Your task to perform on an android device: toggle sleep mode Image 0: 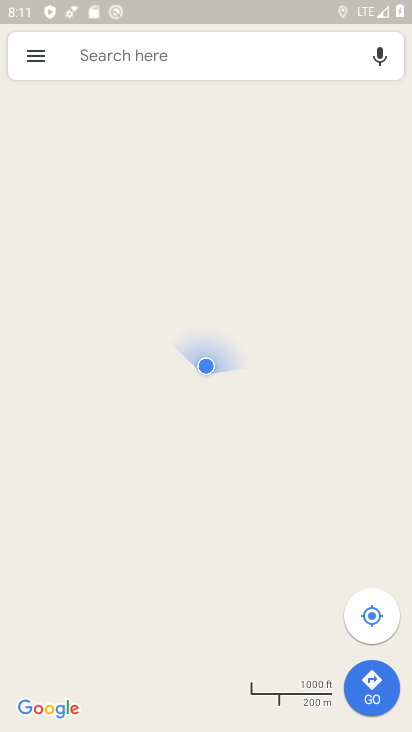
Step 0: press home button
Your task to perform on an android device: toggle sleep mode Image 1: 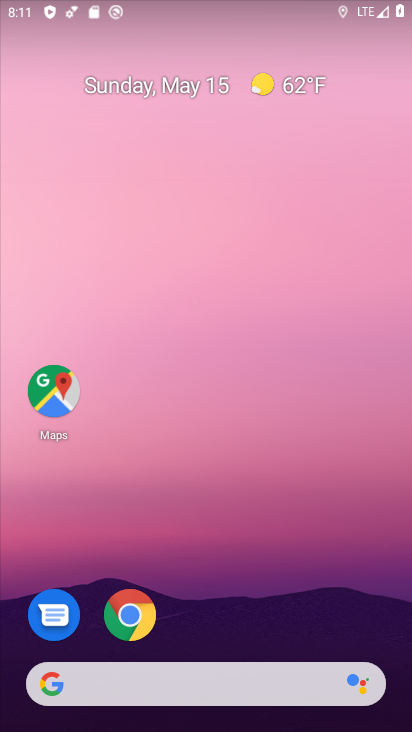
Step 1: drag from (206, 601) to (254, 10)
Your task to perform on an android device: toggle sleep mode Image 2: 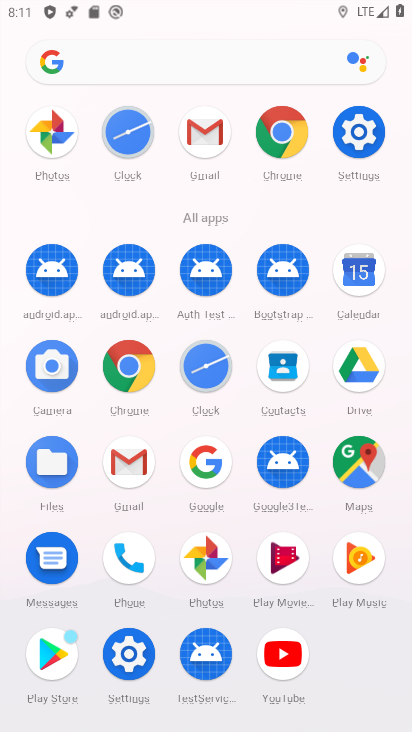
Step 2: click (376, 167)
Your task to perform on an android device: toggle sleep mode Image 3: 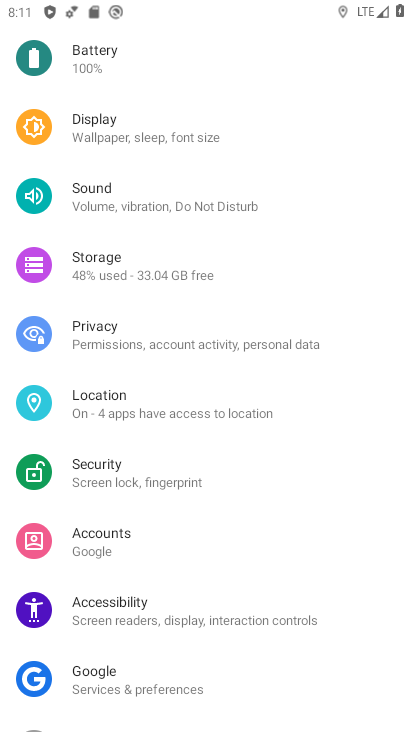
Step 3: click (155, 146)
Your task to perform on an android device: toggle sleep mode Image 4: 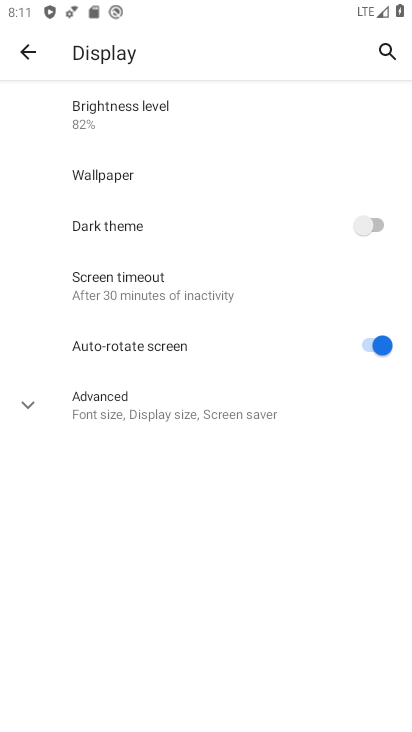
Step 4: click (144, 300)
Your task to perform on an android device: toggle sleep mode Image 5: 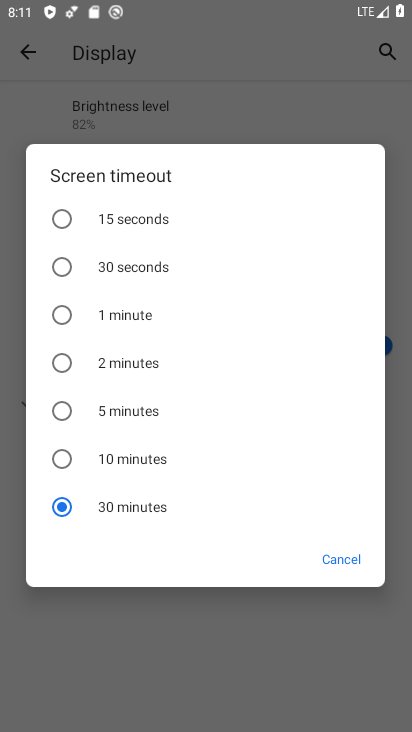
Step 5: click (72, 213)
Your task to perform on an android device: toggle sleep mode Image 6: 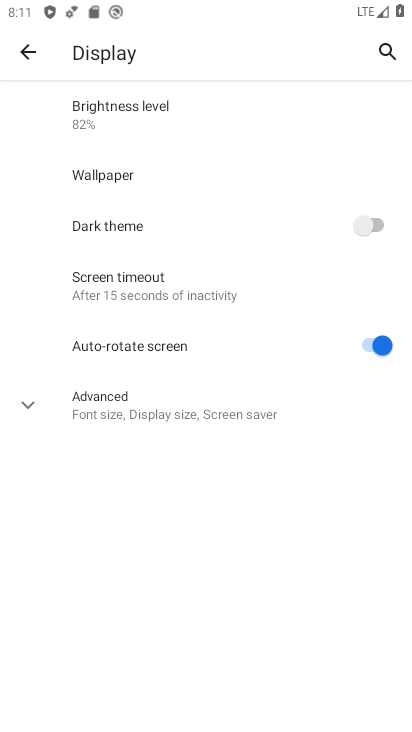
Step 6: task complete